Your task to perform on an android device: turn on showing notifications on the lock screen Image 0: 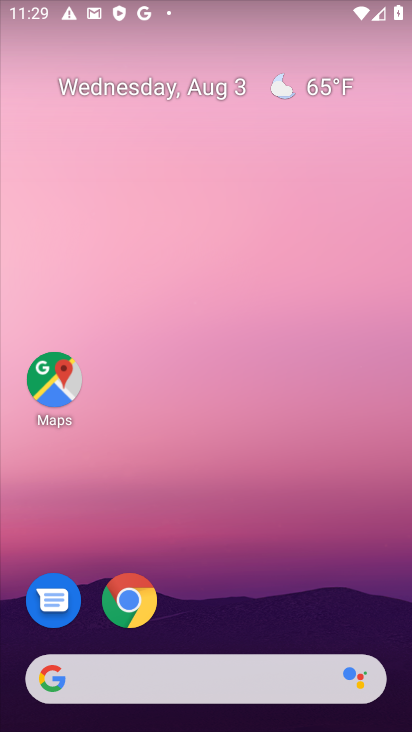
Step 0: drag from (251, 640) to (194, 182)
Your task to perform on an android device: turn on showing notifications on the lock screen Image 1: 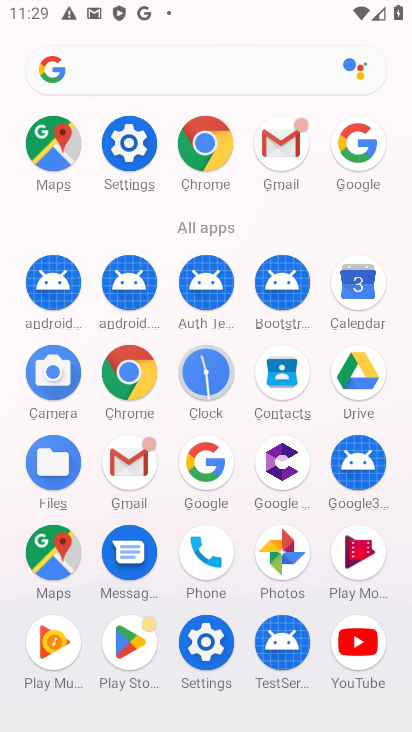
Step 1: click (119, 151)
Your task to perform on an android device: turn on showing notifications on the lock screen Image 2: 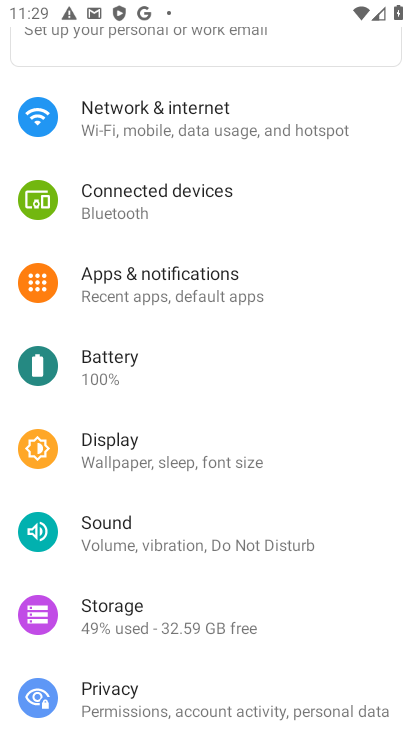
Step 2: click (134, 301)
Your task to perform on an android device: turn on showing notifications on the lock screen Image 3: 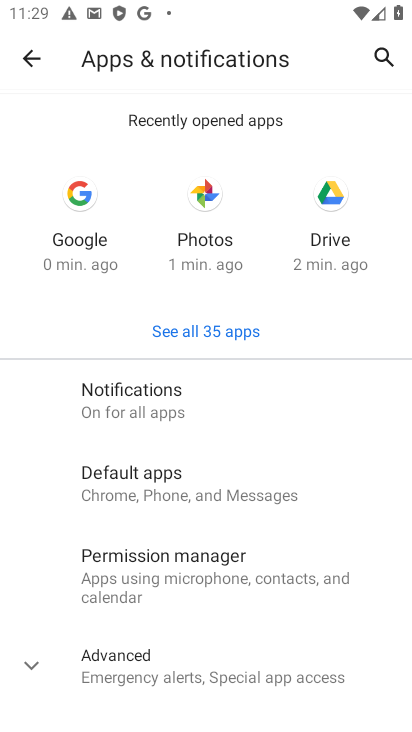
Step 3: click (150, 372)
Your task to perform on an android device: turn on showing notifications on the lock screen Image 4: 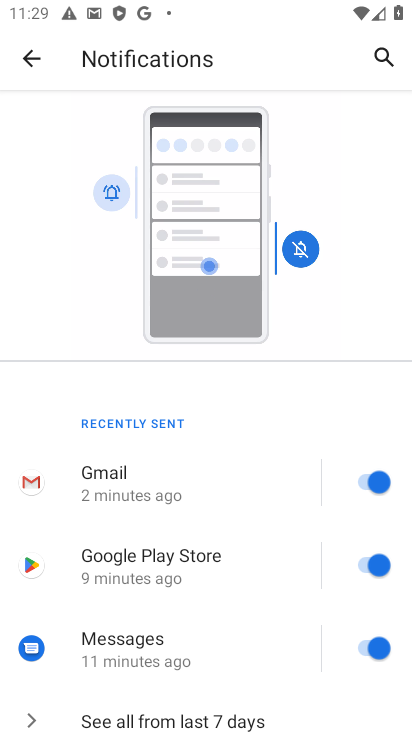
Step 4: drag from (181, 581) to (191, 16)
Your task to perform on an android device: turn on showing notifications on the lock screen Image 5: 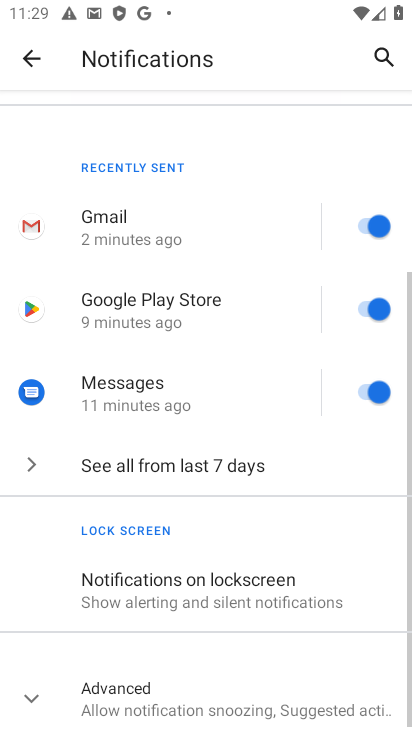
Step 5: click (154, 570)
Your task to perform on an android device: turn on showing notifications on the lock screen Image 6: 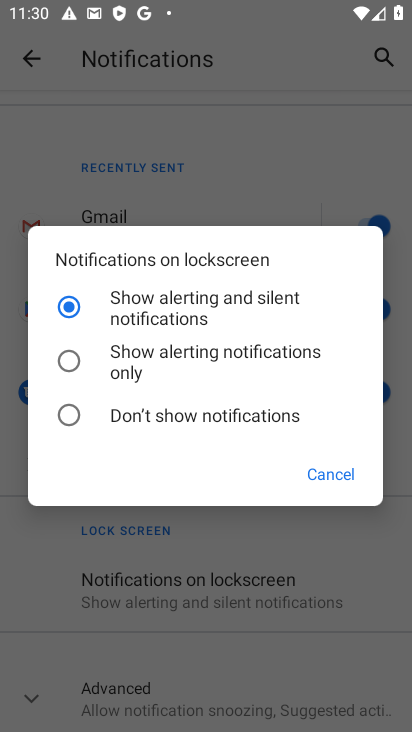
Step 6: click (117, 315)
Your task to perform on an android device: turn on showing notifications on the lock screen Image 7: 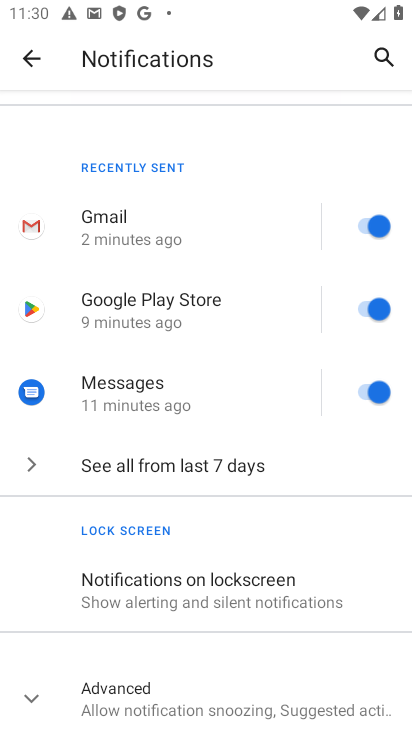
Step 7: task complete